Your task to perform on an android device: toggle show notifications on the lock screen Image 0: 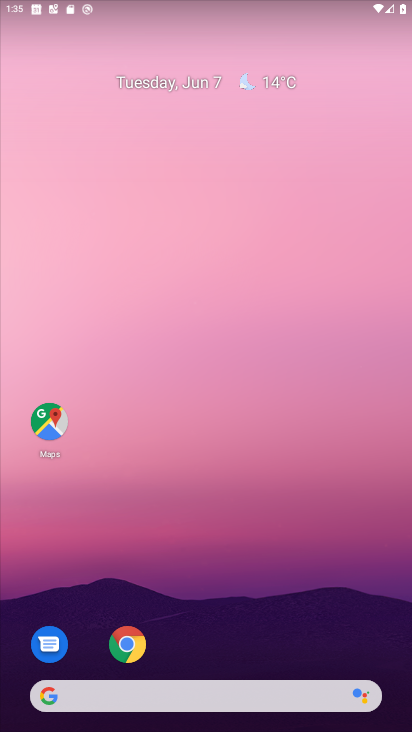
Step 0: drag from (220, 621) to (273, 3)
Your task to perform on an android device: toggle show notifications on the lock screen Image 1: 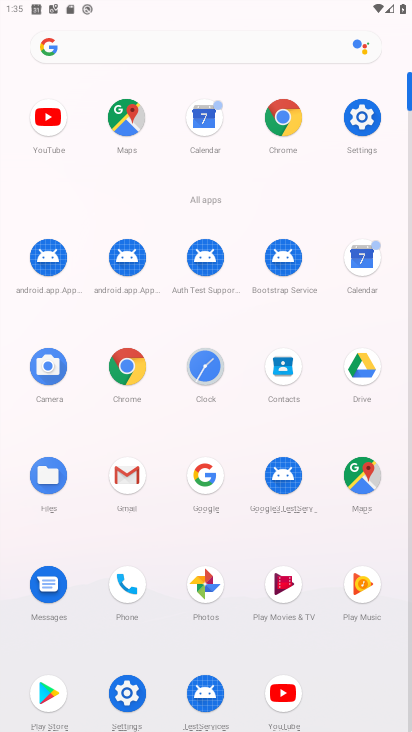
Step 1: click (372, 130)
Your task to perform on an android device: toggle show notifications on the lock screen Image 2: 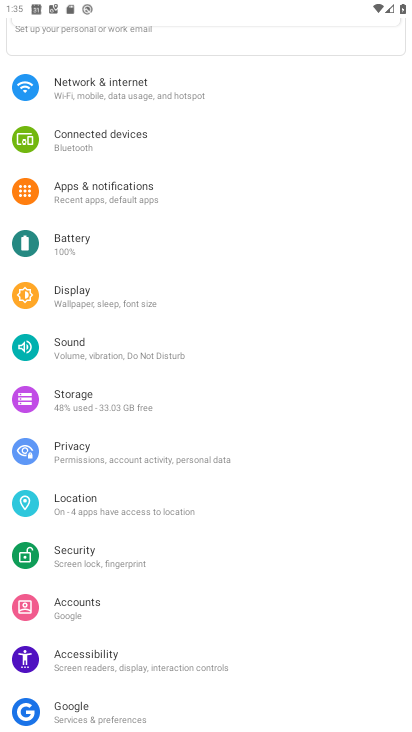
Step 2: click (116, 185)
Your task to perform on an android device: toggle show notifications on the lock screen Image 3: 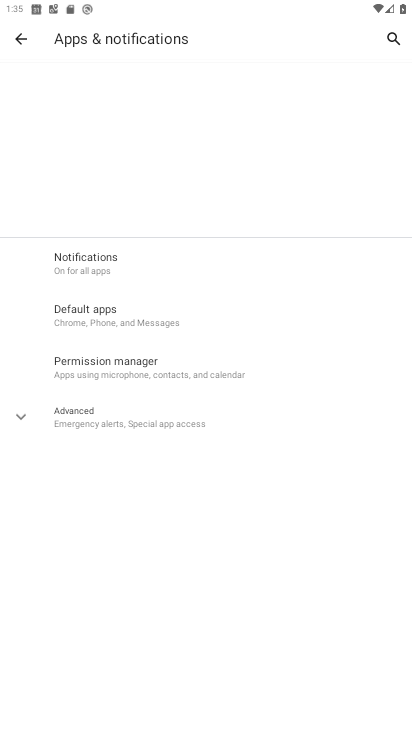
Step 3: click (96, 268)
Your task to perform on an android device: toggle show notifications on the lock screen Image 4: 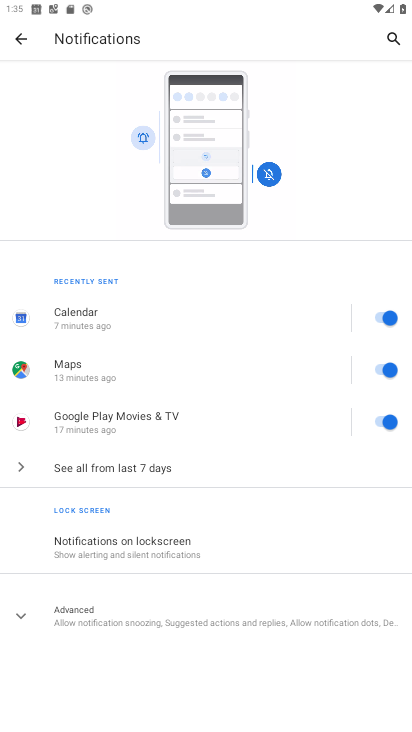
Step 4: click (117, 542)
Your task to perform on an android device: toggle show notifications on the lock screen Image 5: 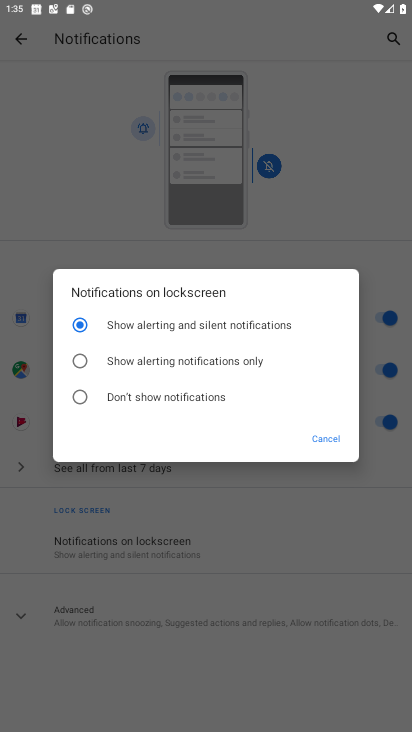
Step 5: click (143, 360)
Your task to perform on an android device: toggle show notifications on the lock screen Image 6: 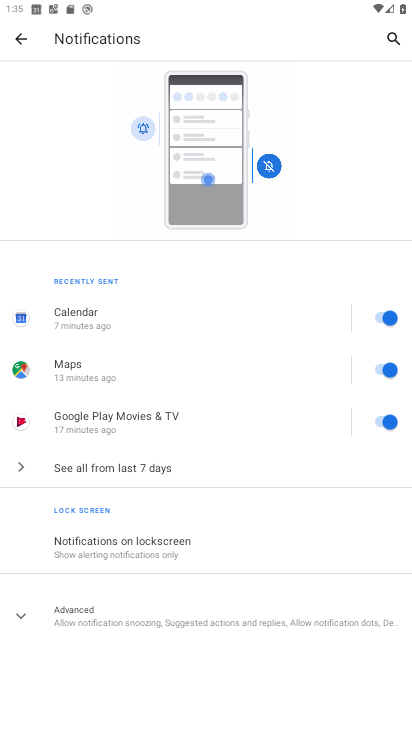
Step 6: task complete